Your task to perform on an android device: Open Amazon Image 0: 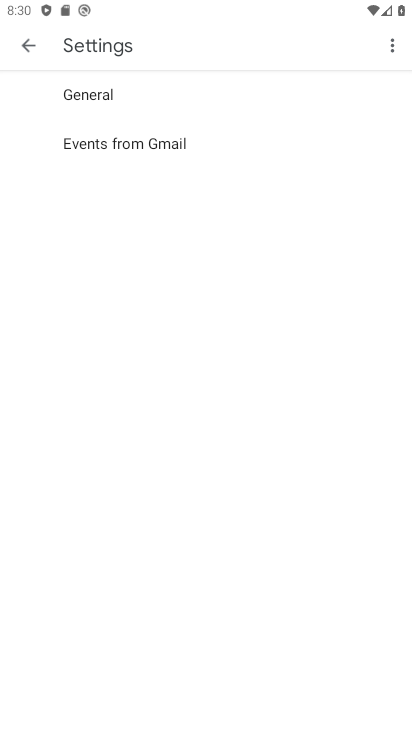
Step 0: press home button
Your task to perform on an android device: Open Amazon Image 1: 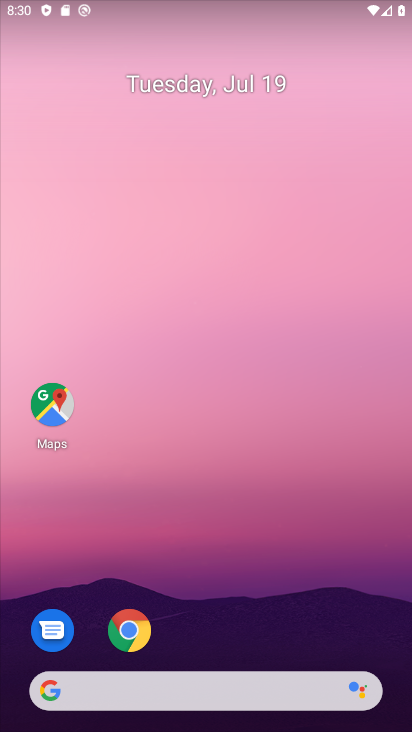
Step 1: drag from (203, 649) to (224, 107)
Your task to perform on an android device: Open Amazon Image 2: 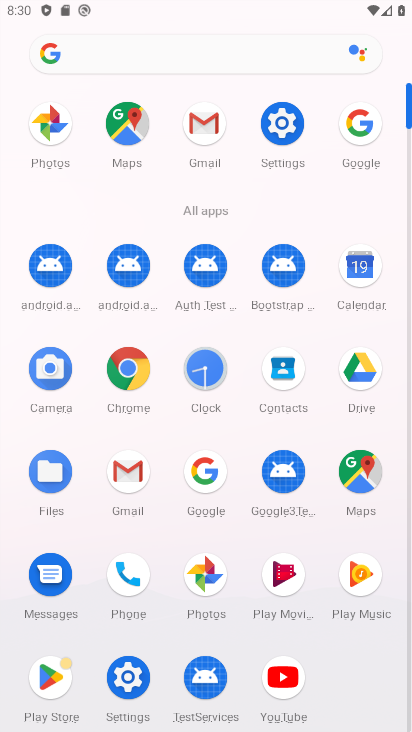
Step 2: click (132, 368)
Your task to perform on an android device: Open Amazon Image 3: 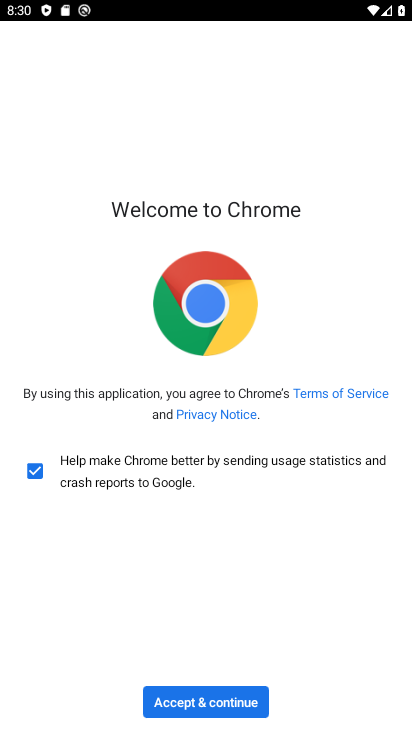
Step 3: click (230, 702)
Your task to perform on an android device: Open Amazon Image 4: 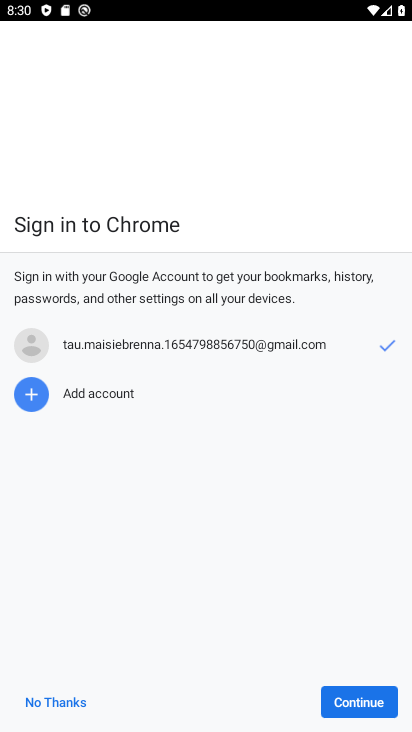
Step 4: click (355, 699)
Your task to perform on an android device: Open Amazon Image 5: 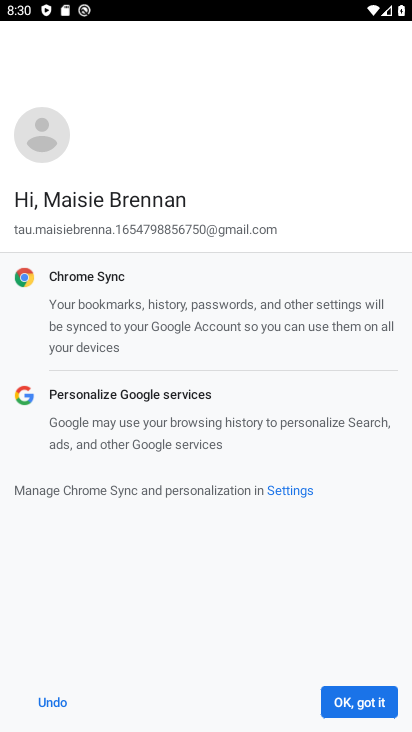
Step 5: click (355, 699)
Your task to perform on an android device: Open Amazon Image 6: 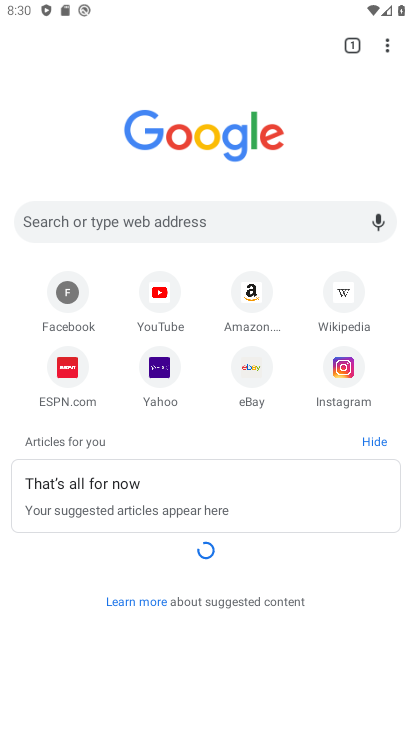
Step 6: click (253, 293)
Your task to perform on an android device: Open Amazon Image 7: 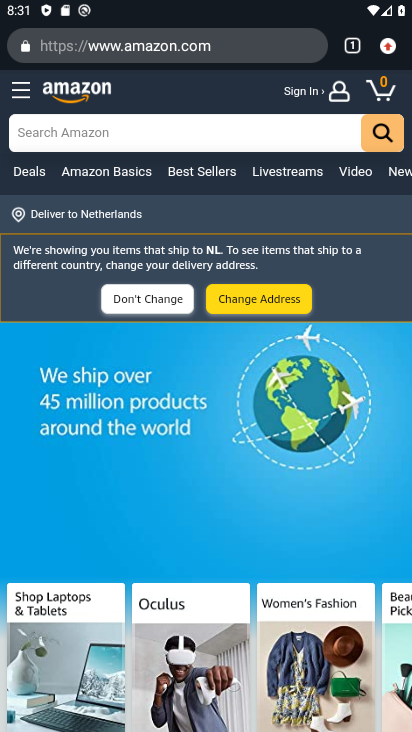
Step 7: task complete